Your task to perform on an android device: choose inbox layout in the gmail app Image 0: 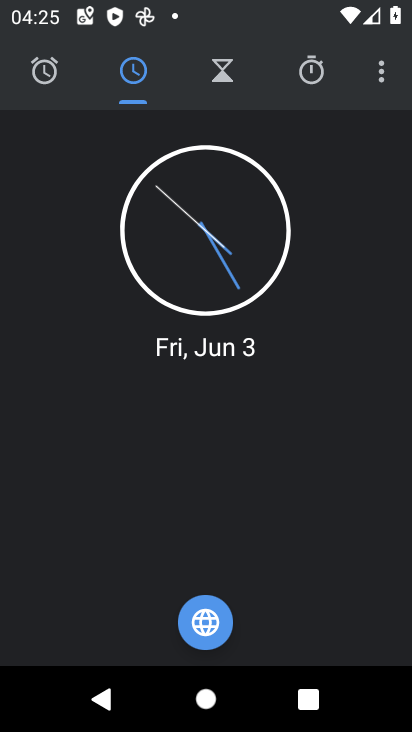
Step 0: press home button
Your task to perform on an android device: choose inbox layout in the gmail app Image 1: 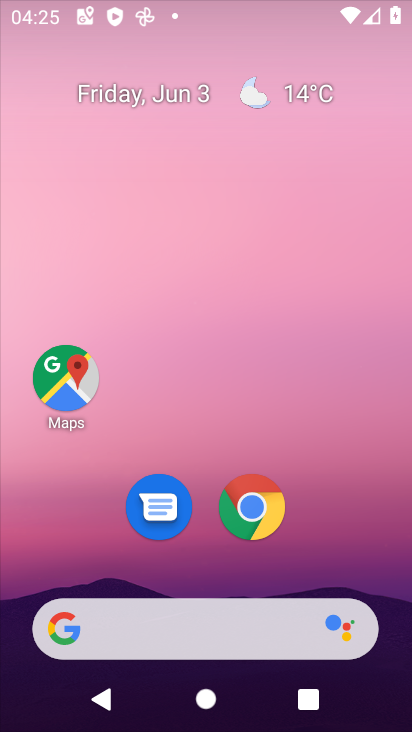
Step 1: drag from (334, 542) to (331, 85)
Your task to perform on an android device: choose inbox layout in the gmail app Image 2: 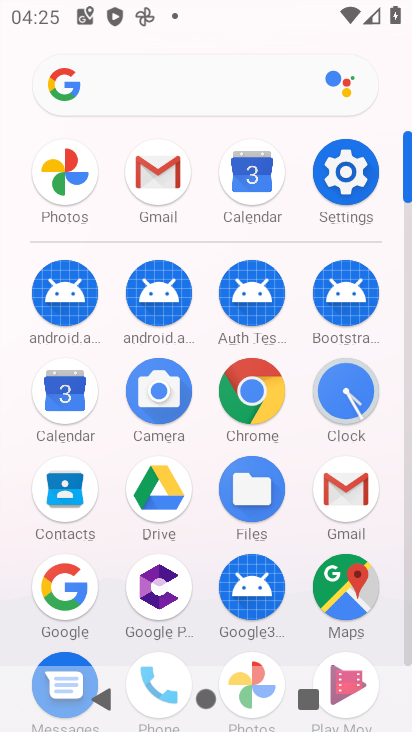
Step 2: click (335, 167)
Your task to perform on an android device: choose inbox layout in the gmail app Image 3: 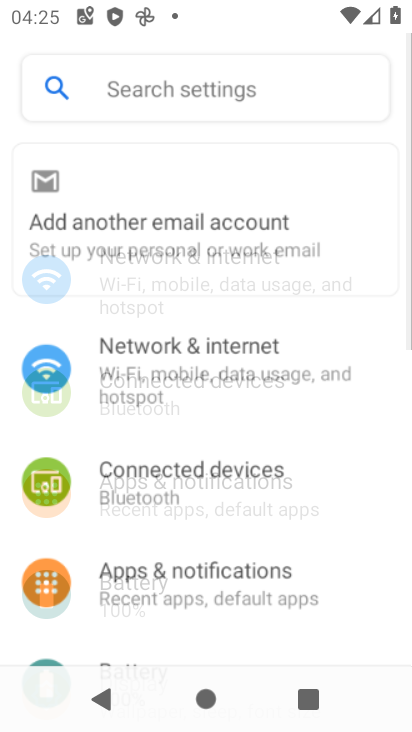
Step 3: press home button
Your task to perform on an android device: choose inbox layout in the gmail app Image 4: 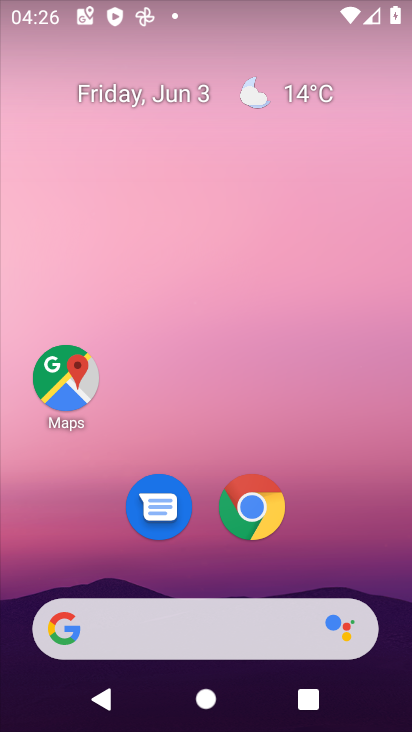
Step 4: drag from (335, 558) to (278, 131)
Your task to perform on an android device: choose inbox layout in the gmail app Image 5: 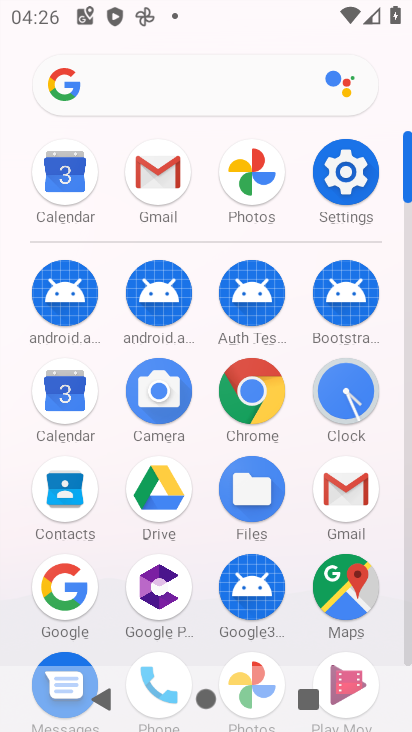
Step 5: click (167, 181)
Your task to perform on an android device: choose inbox layout in the gmail app Image 6: 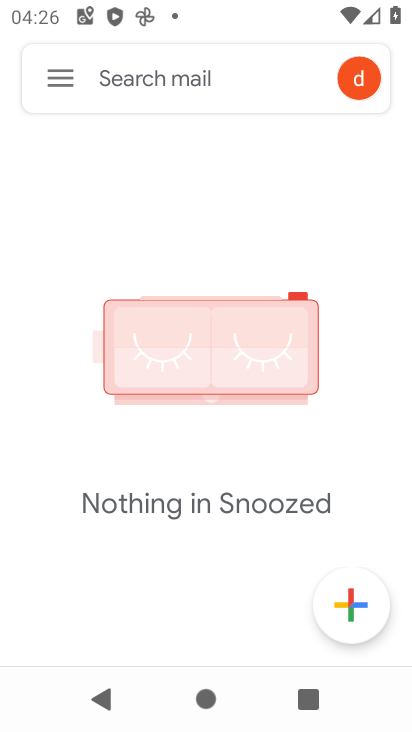
Step 6: click (67, 71)
Your task to perform on an android device: choose inbox layout in the gmail app Image 7: 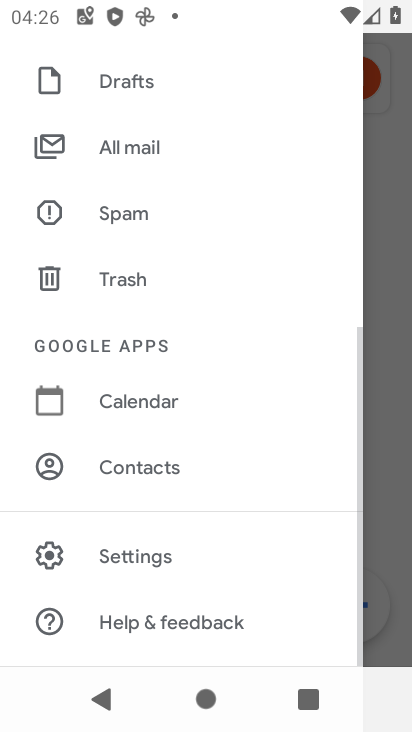
Step 7: click (215, 563)
Your task to perform on an android device: choose inbox layout in the gmail app Image 8: 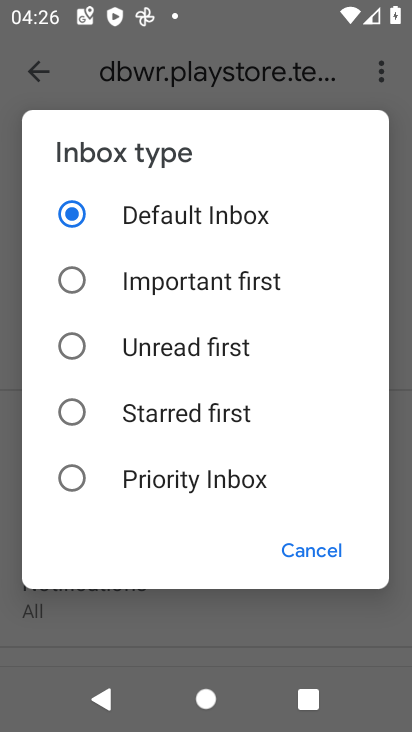
Step 8: click (322, 548)
Your task to perform on an android device: choose inbox layout in the gmail app Image 9: 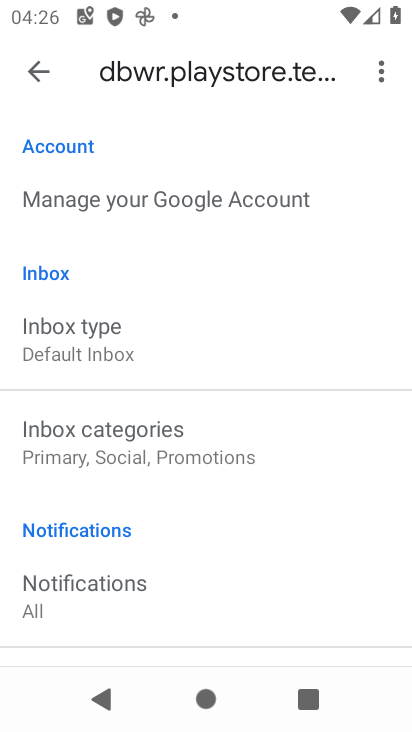
Step 9: task complete